Your task to perform on an android device: Searchfor good French restaurants Image 0: 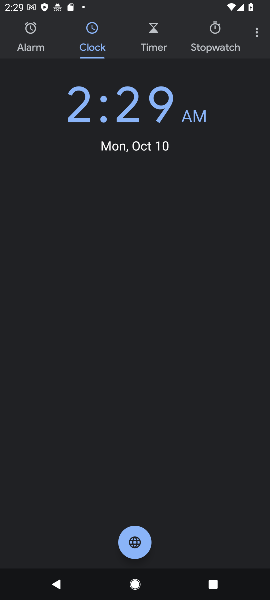
Step 0: press home button
Your task to perform on an android device: Searchfor good French restaurants Image 1: 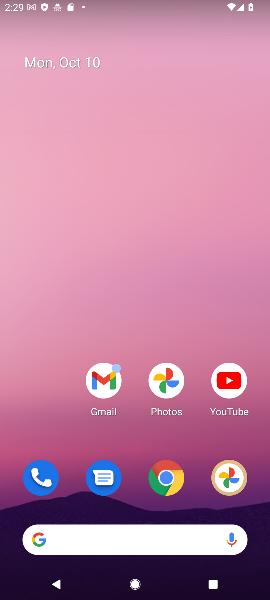
Step 1: click (170, 478)
Your task to perform on an android device: Searchfor good French restaurants Image 2: 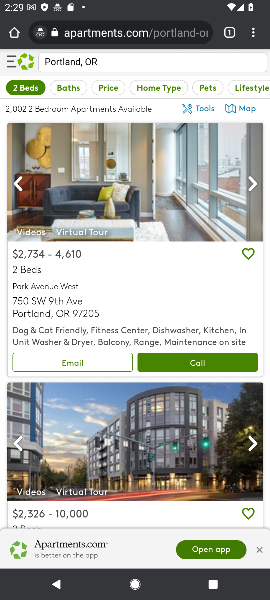
Step 2: click (162, 34)
Your task to perform on an android device: Searchfor good French restaurants Image 3: 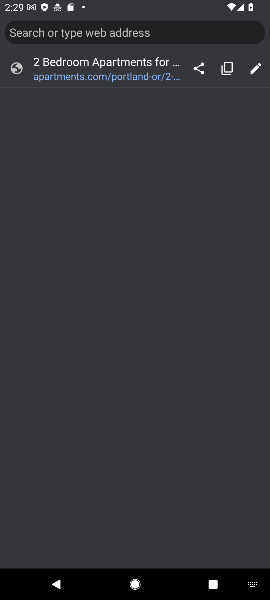
Step 3: type "good French restaurants"
Your task to perform on an android device: Searchfor good French restaurants Image 4: 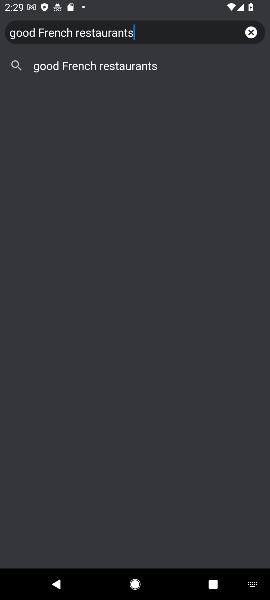
Step 4: click (93, 64)
Your task to perform on an android device: Searchfor good French restaurants Image 5: 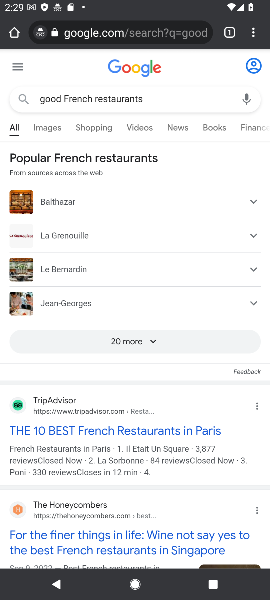
Step 5: click (39, 428)
Your task to perform on an android device: Searchfor good French restaurants Image 6: 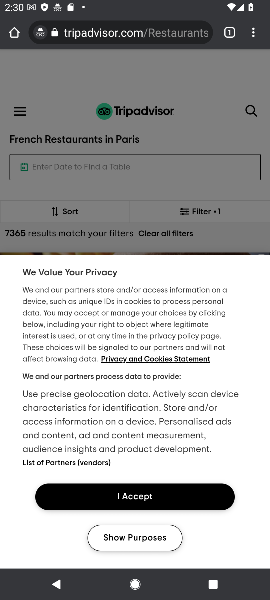
Step 6: click (141, 502)
Your task to perform on an android device: Searchfor good French restaurants Image 7: 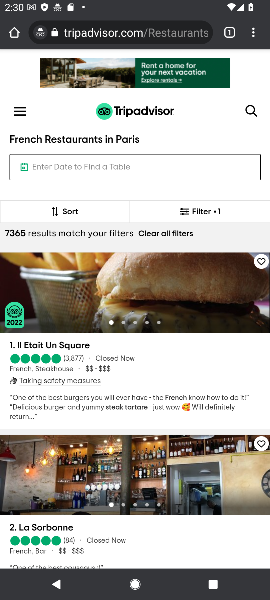
Step 7: task complete